Your task to perform on an android device: Open my contact list Image 0: 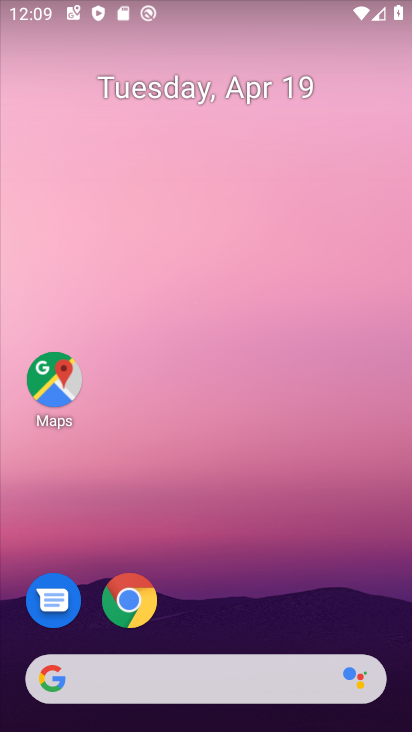
Step 0: drag from (195, 658) to (148, 3)
Your task to perform on an android device: Open my contact list Image 1: 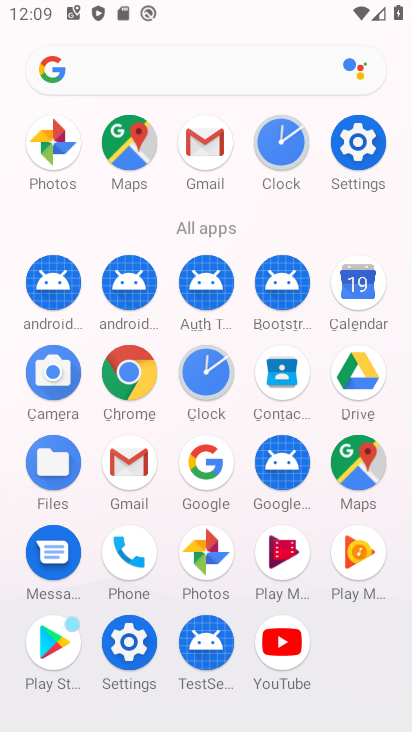
Step 1: click (130, 547)
Your task to perform on an android device: Open my contact list Image 2: 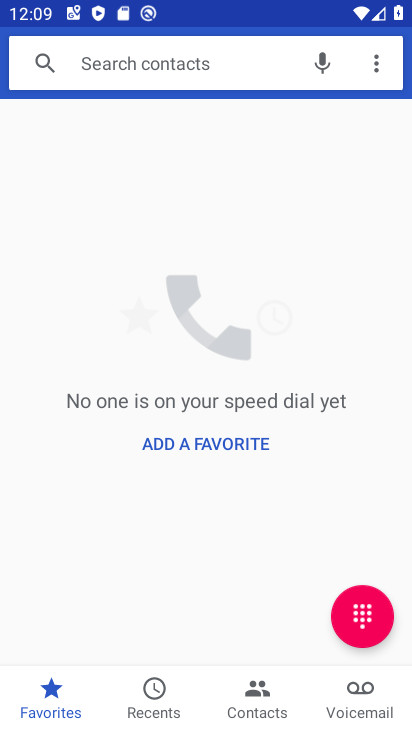
Step 2: click (267, 688)
Your task to perform on an android device: Open my contact list Image 3: 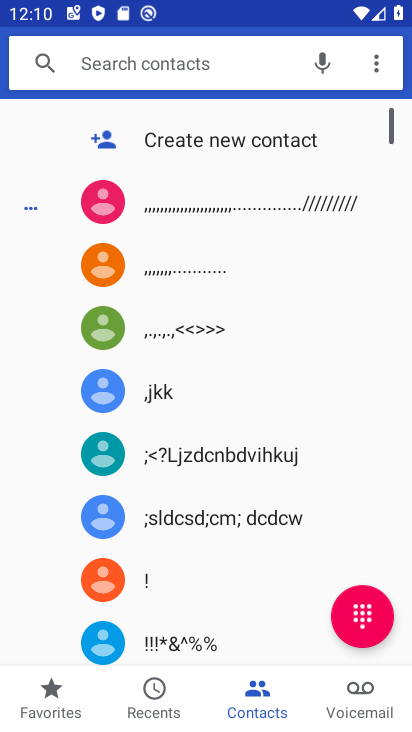
Step 3: task complete